Your task to perform on an android device: Check the weather Image 0: 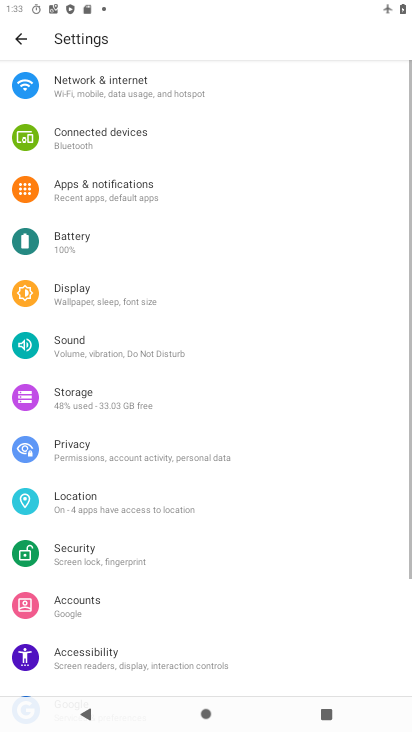
Step 0: press home button
Your task to perform on an android device: Check the weather Image 1: 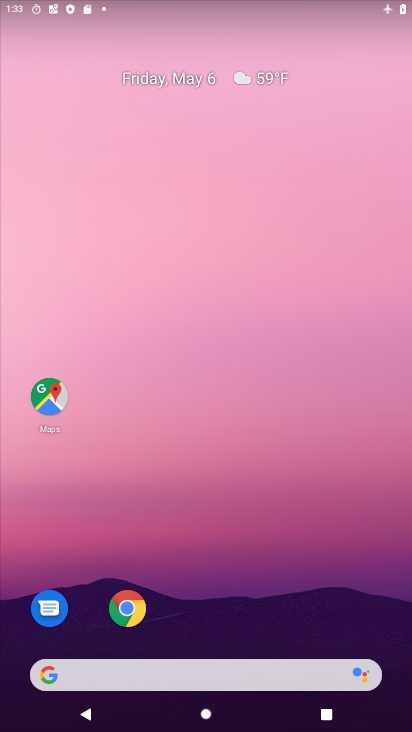
Step 1: click (128, 606)
Your task to perform on an android device: Check the weather Image 2: 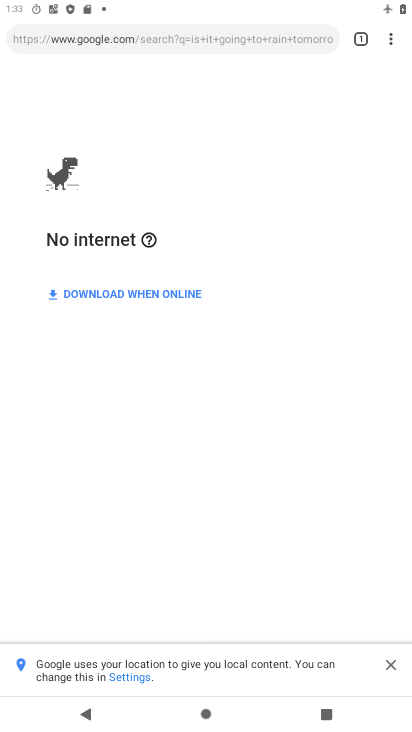
Step 2: click (134, 40)
Your task to perform on an android device: Check the weather Image 3: 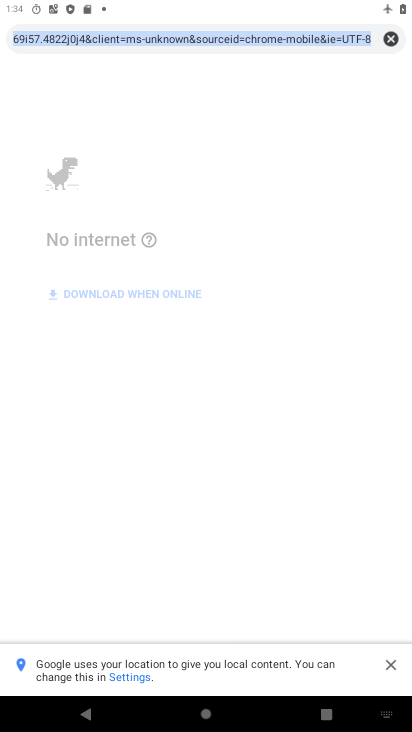
Step 3: type "weather"
Your task to perform on an android device: Check the weather Image 4: 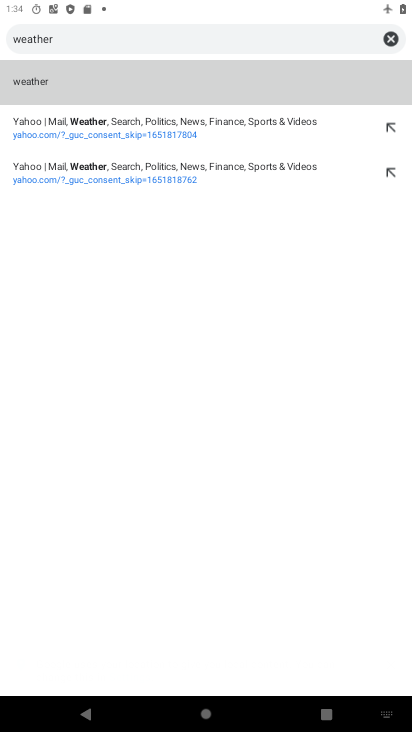
Step 4: click (135, 79)
Your task to perform on an android device: Check the weather Image 5: 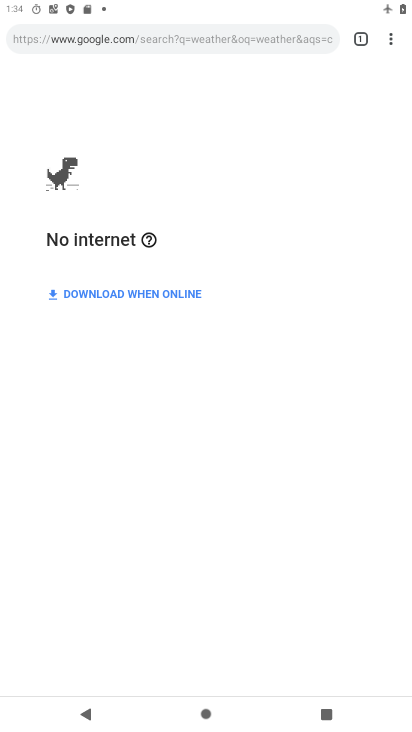
Step 5: task complete